Your task to perform on an android device: Open my contact list Image 0: 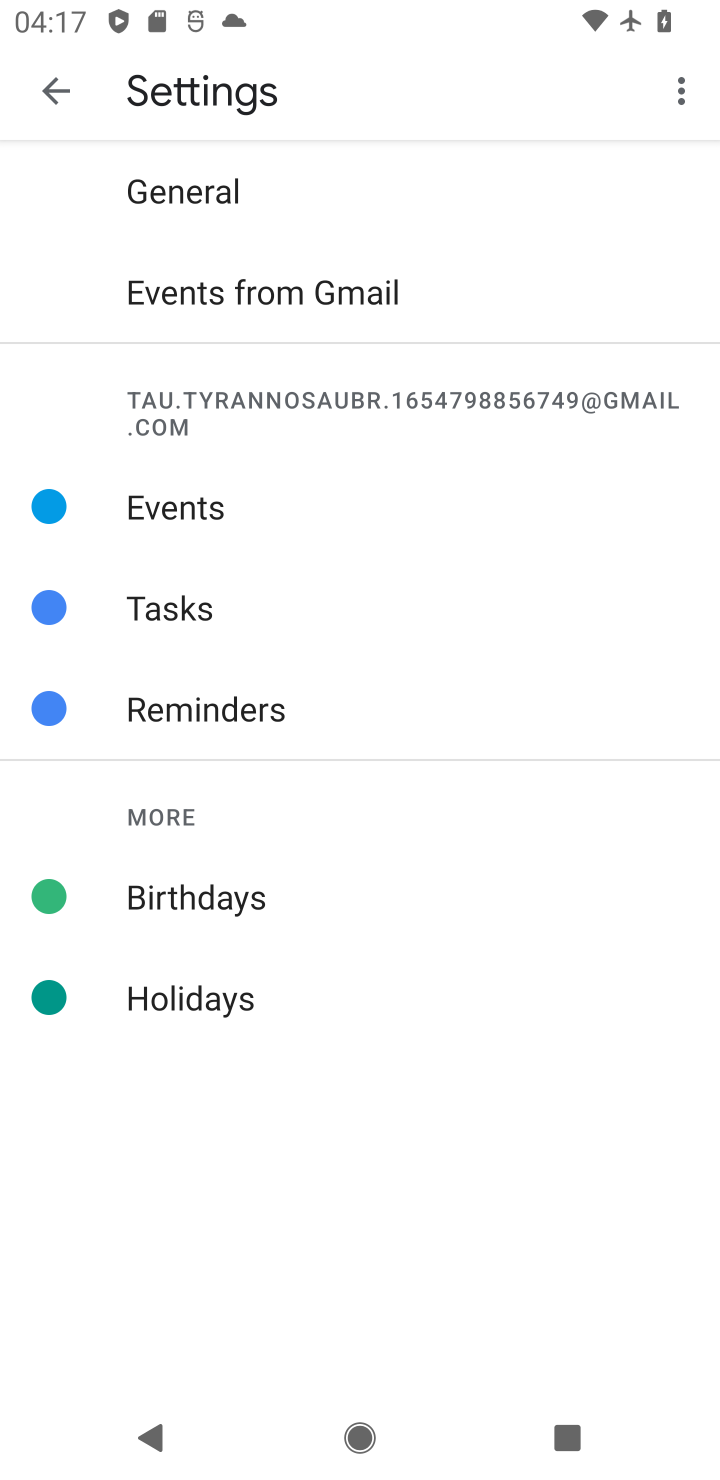
Step 0: press home button
Your task to perform on an android device: Open my contact list Image 1: 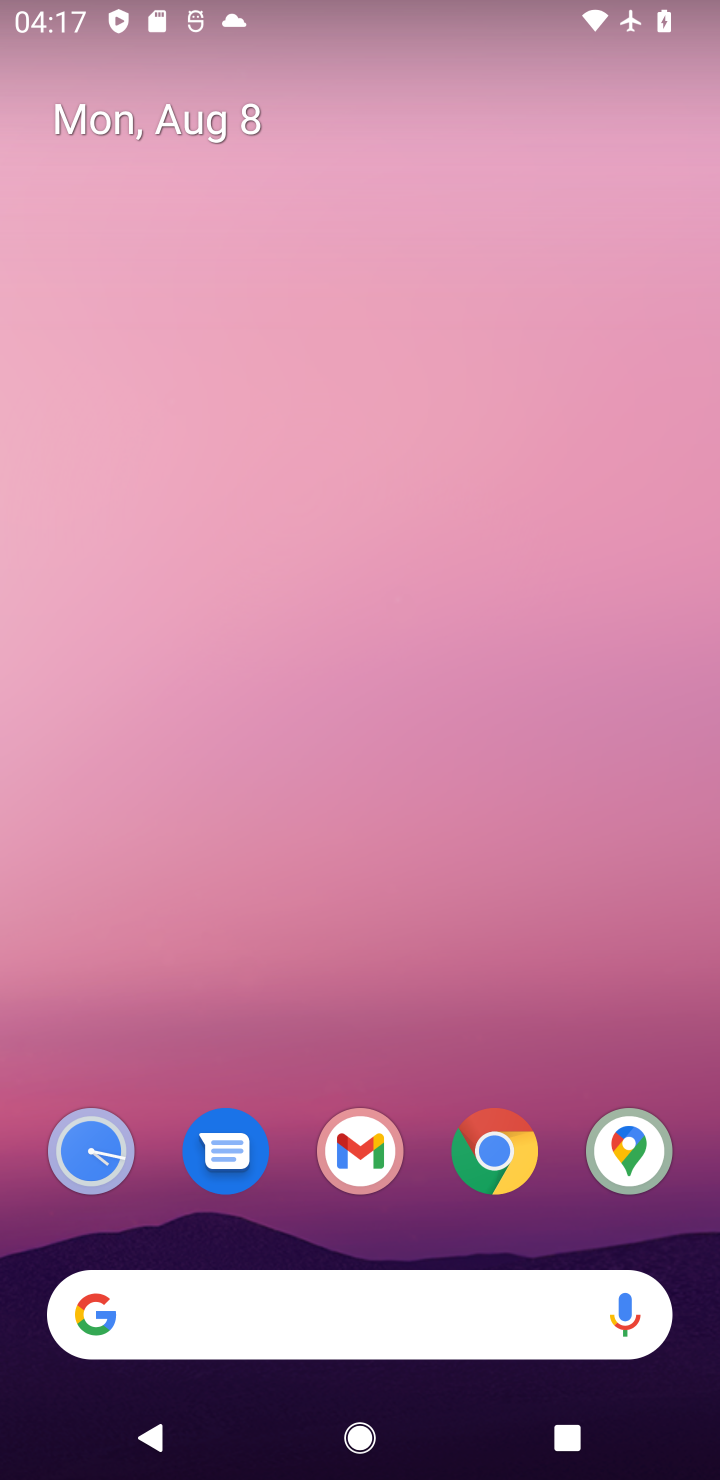
Step 1: drag from (351, 1036) to (400, 35)
Your task to perform on an android device: Open my contact list Image 2: 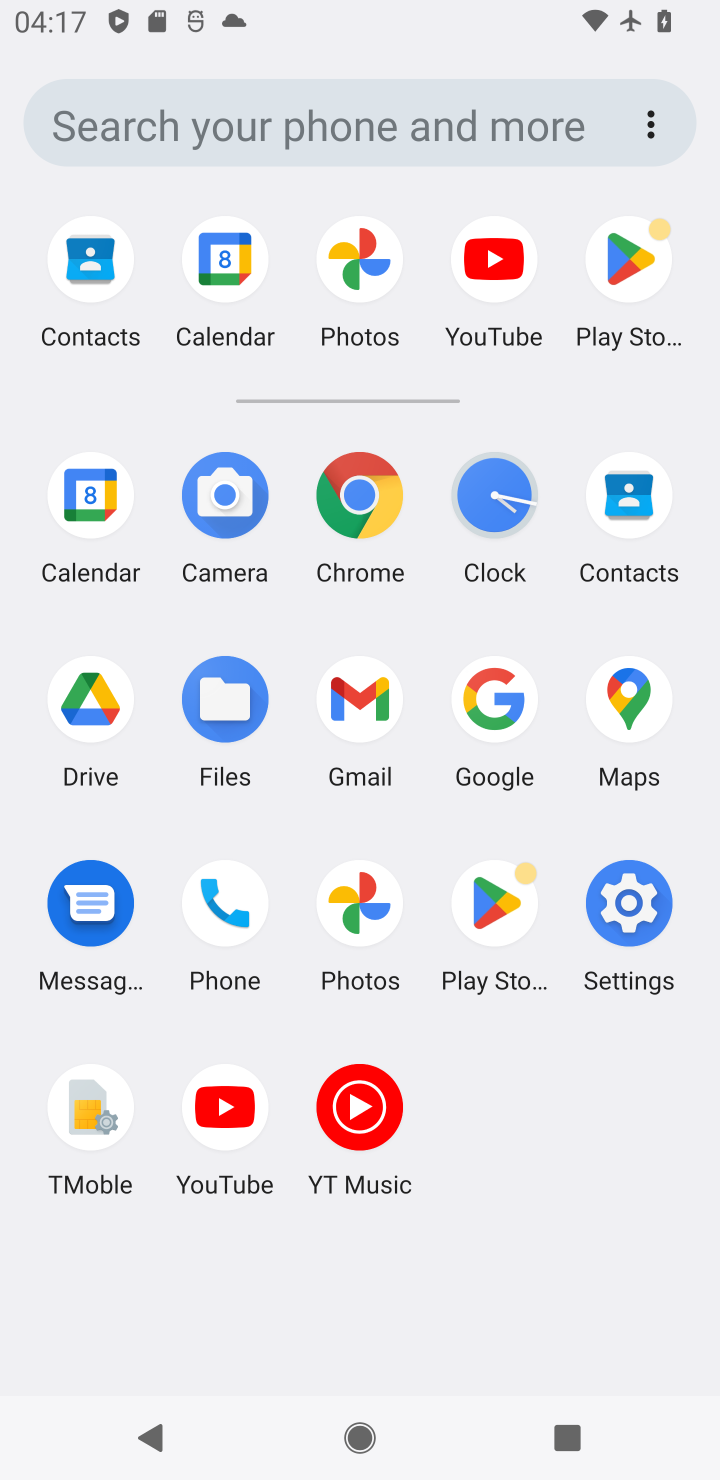
Step 2: click (652, 497)
Your task to perform on an android device: Open my contact list Image 3: 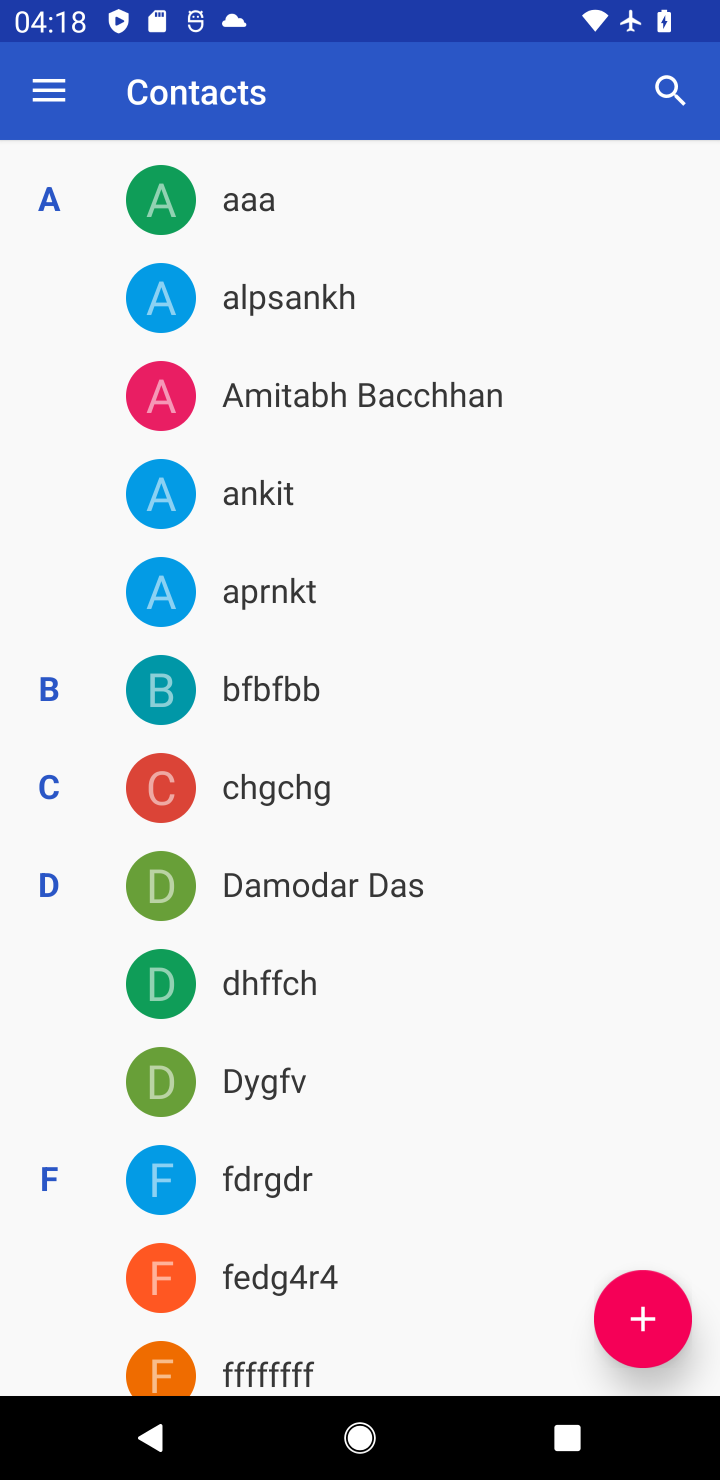
Step 3: task complete